Your task to perform on an android device: Find coffee shops on Maps Image 0: 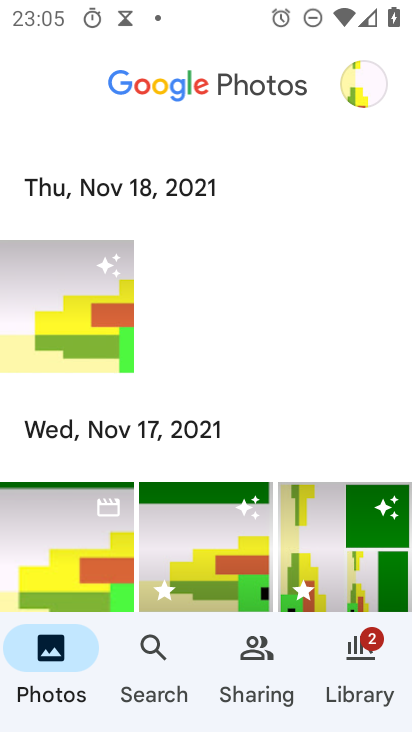
Step 0: press home button
Your task to perform on an android device: Find coffee shops on Maps Image 1: 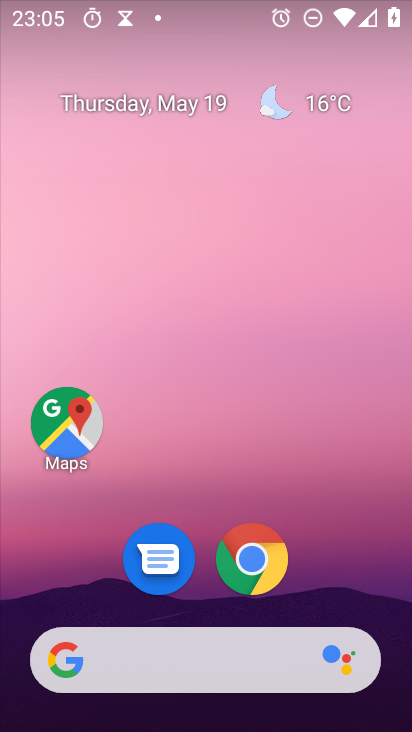
Step 1: drag from (196, 727) to (212, 175)
Your task to perform on an android device: Find coffee shops on Maps Image 2: 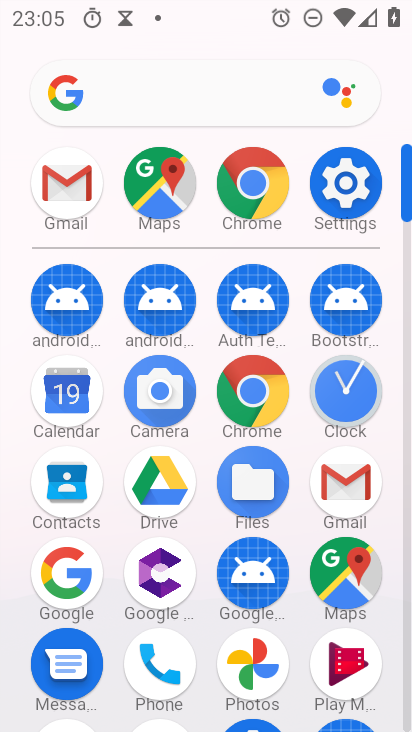
Step 2: click (352, 582)
Your task to perform on an android device: Find coffee shops on Maps Image 3: 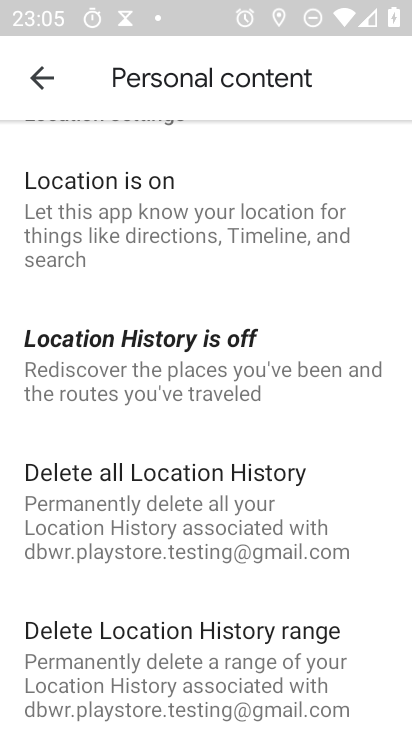
Step 3: click (44, 71)
Your task to perform on an android device: Find coffee shops on Maps Image 4: 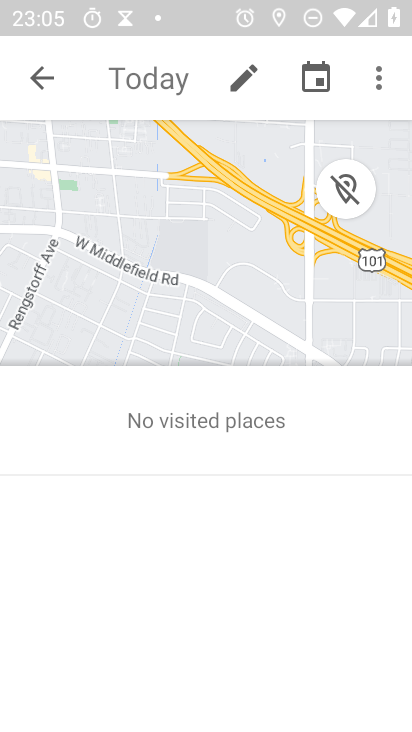
Step 4: click (36, 79)
Your task to perform on an android device: Find coffee shops on Maps Image 5: 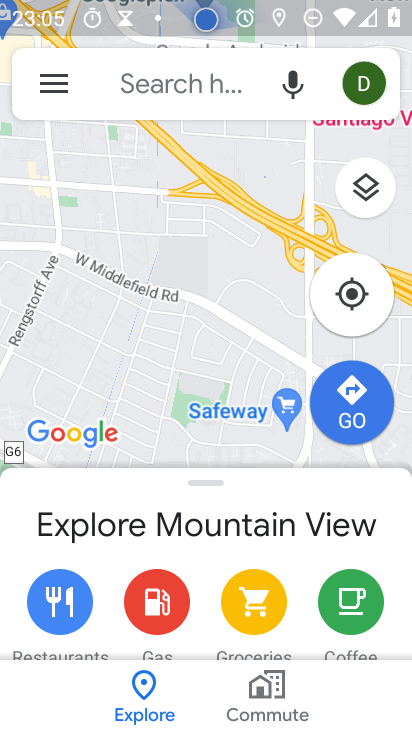
Step 5: click (155, 81)
Your task to perform on an android device: Find coffee shops on Maps Image 6: 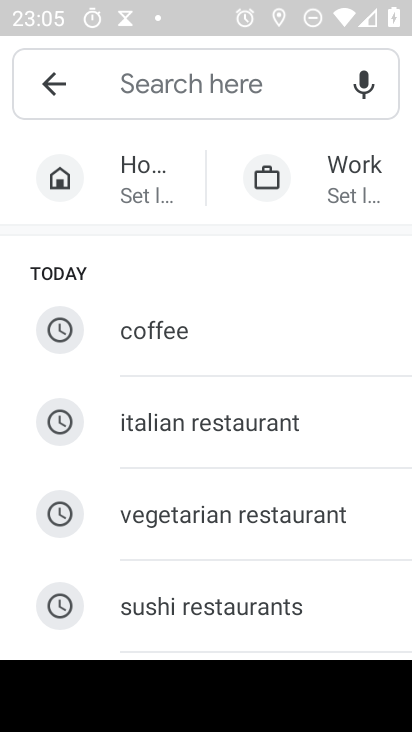
Step 6: type "coffee shops"
Your task to perform on an android device: Find coffee shops on Maps Image 7: 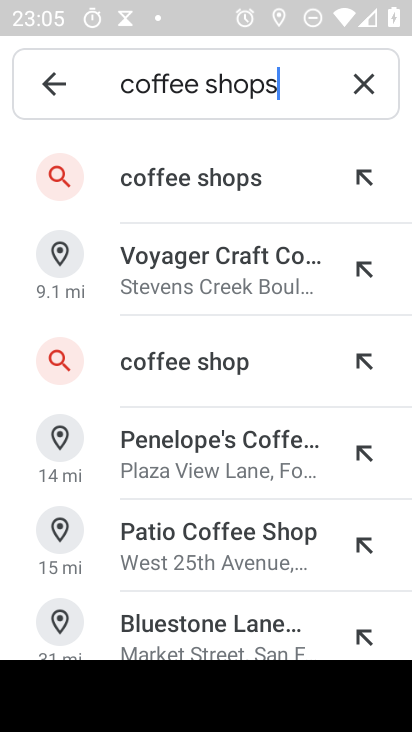
Step 7: click (185, 179)
Your task to perform on an android device: Find coffee shops on Maps Image 8: 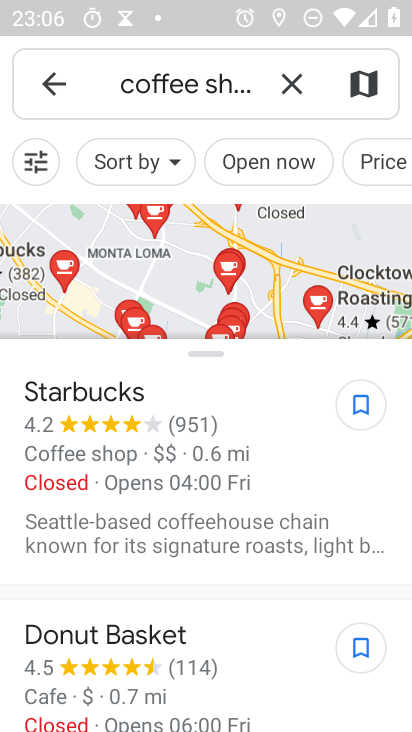
Step 8: task complete